Your task to perform on an android device: open app "Calculator" (install if not already installed) Image 0: 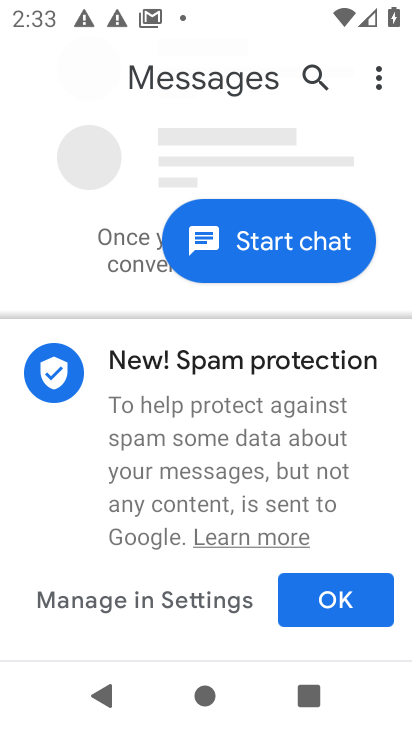
Step 0: press home button
Your task to perform on an android device: open app "Calculator" (install if not already installed) Image 1: 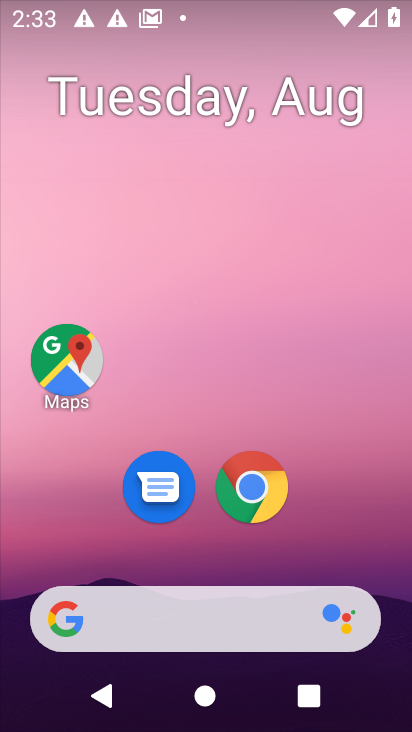
Step 1: drag from (167, 621) to (214, 77)
Your task to perform on an android device: open app "Calculator" (install if not already installed) Image 2: 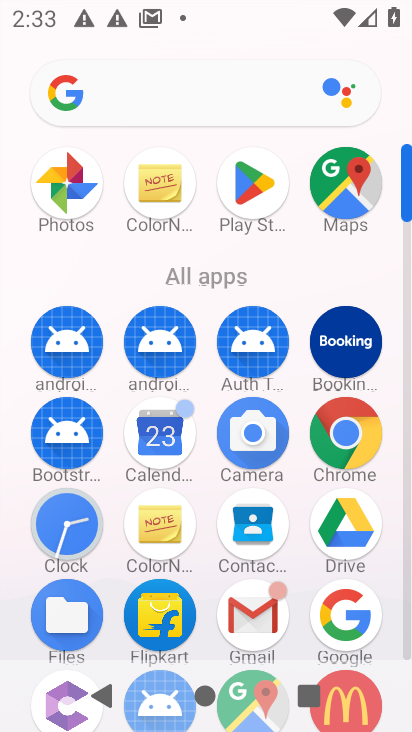
Step 2: click (259, 191)
Your task to perform on an android device: open app "Calculator" (install if not already installed) Image 3: 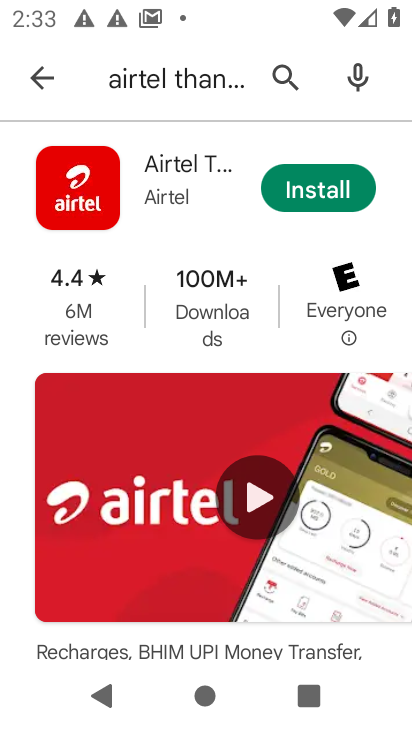
Step 3: press back button
Your task to perform on an android device: open app "Calculator" (install if not already installed) Image 4: 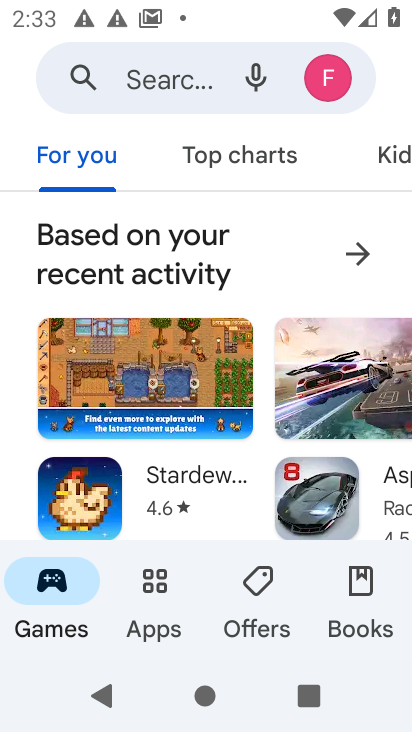
Step 4: click (175, 88)
Your task to perform on an android device: open app "Calculator" (install if not already installed) Image 5: 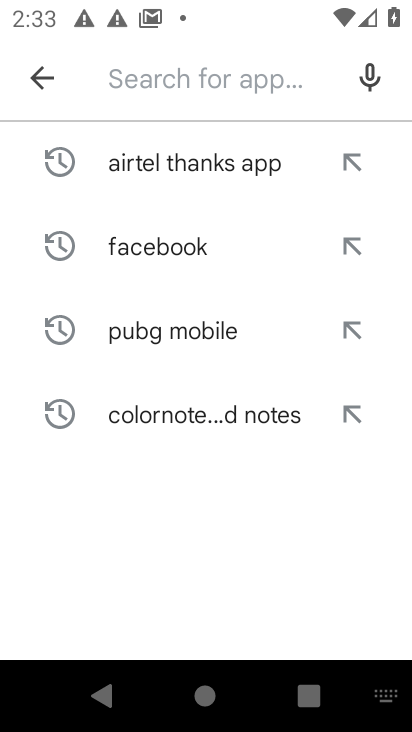
Step 5: type "Calculator"
Your task to perform on an android device: open app "Calculator" (install if not already installed) Image 6: 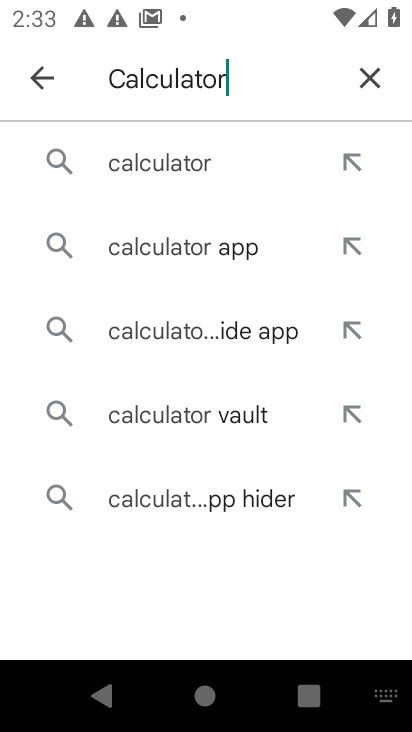
Step 6: click (202, 171)
Your task to perform on an android device: open app "Calculator" (install if not already installed) Image 7: 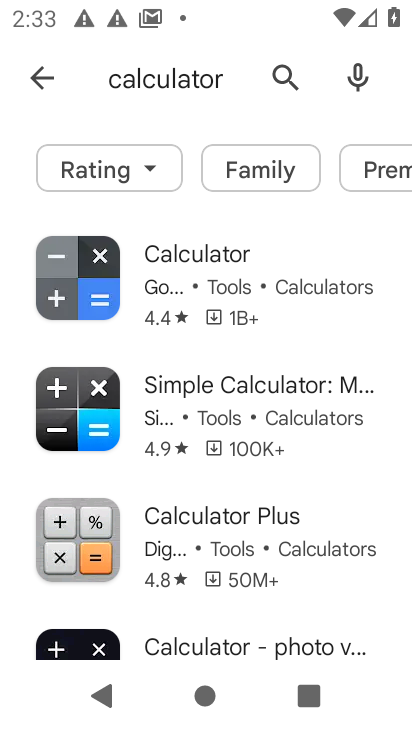
Step 7: click (177, 251)
Your task to perform on an android device: open app "Calculator" (install if not already installed) Image 8: 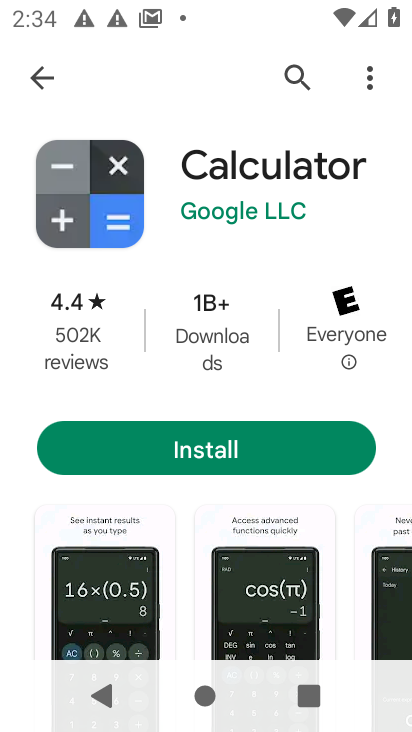
Step 8: click (201, 452)
Your task to perform on an android device: open app "Calculator" (install if not already installed) Image 9: 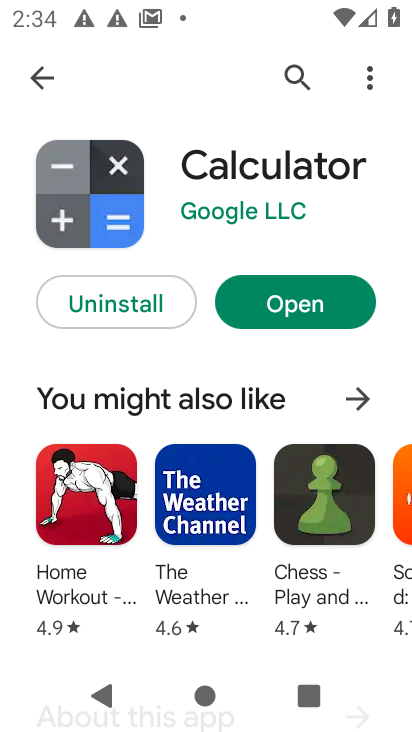
Step 9: click (309, 300)
Your task to perform on an android device: open app "Calculator" (install if not already installed) Image 10: 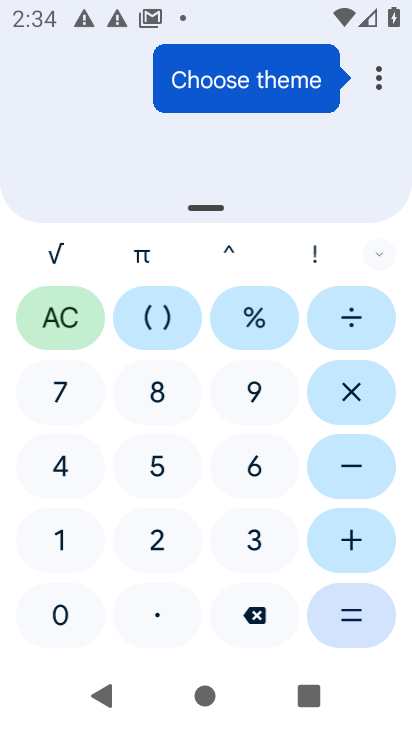
Step 10: task complete